Your task to perform on an android device: check the backup settings in the google photos Image 0: 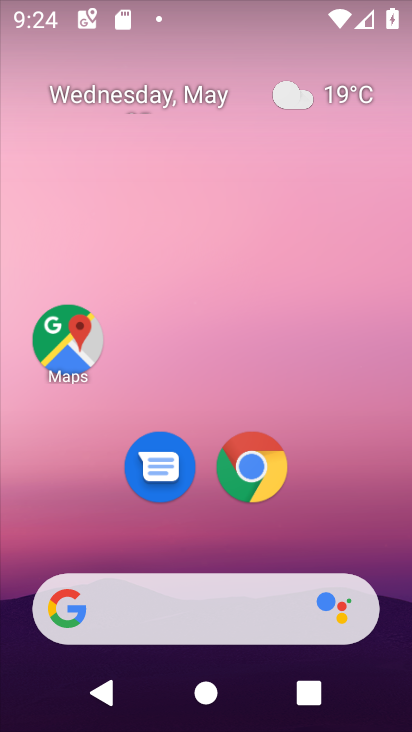
Step 0: drag from (336, 463) to (326, 85)
Your task to perform on an android device: check the backup settings in the google photos Image 1: 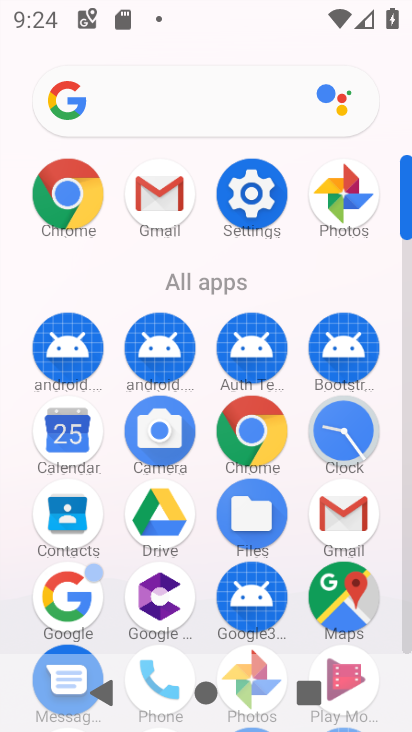
Step 1: drag from (316, 605) to (332, 341)
Your task to perform on an android device: check the backup settings in the google photos Image 2: 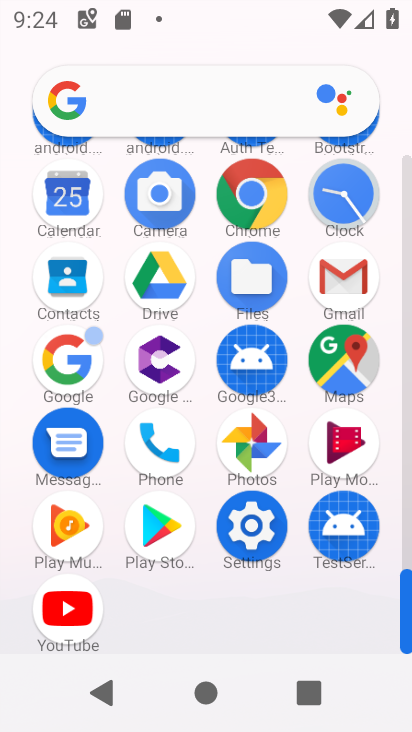
Step 2: click (272, 430)
Your task to perform on an android device: check the backup settings in the google photos Image 3: 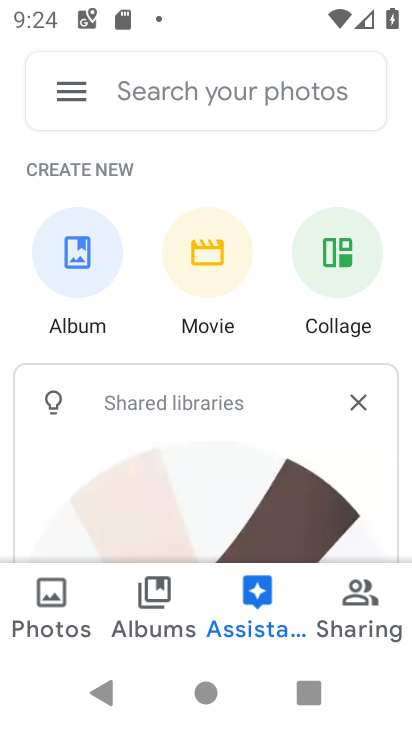
Step 3: click (75, 99)
Your task to perform on an android device: check the backup settings in the google photos Image 4: 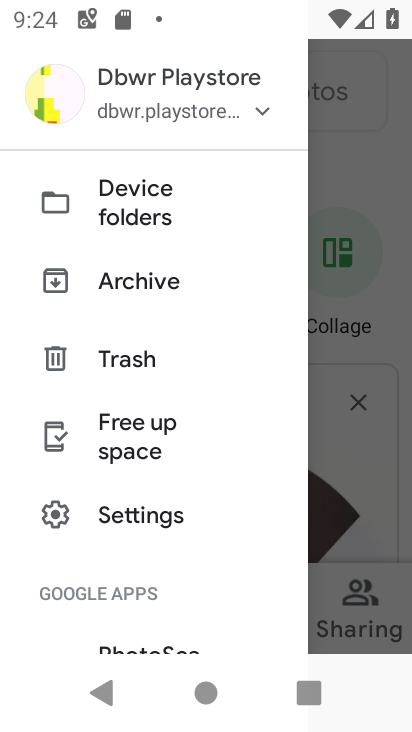
Step 4: drag from (116, 566) to (170, 353)
Your task to perform on an android device: check the backup settings in the google photos Image 5: 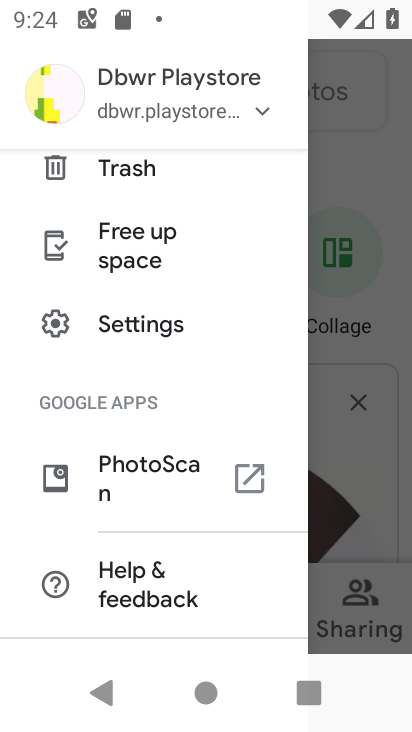
Step 5: click (172, 311)
Your task to perform on an android device: check the backup settings in the google photos Image 6: 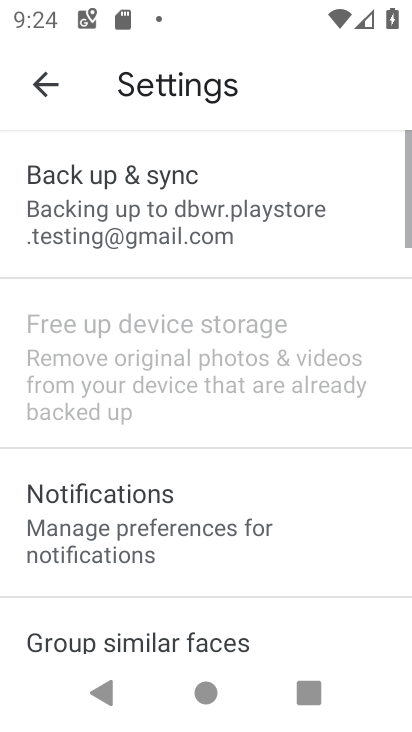
Step 6: click (190, 185)
Your task to perform on an android device: check the backup settings in the google photos Image 7: 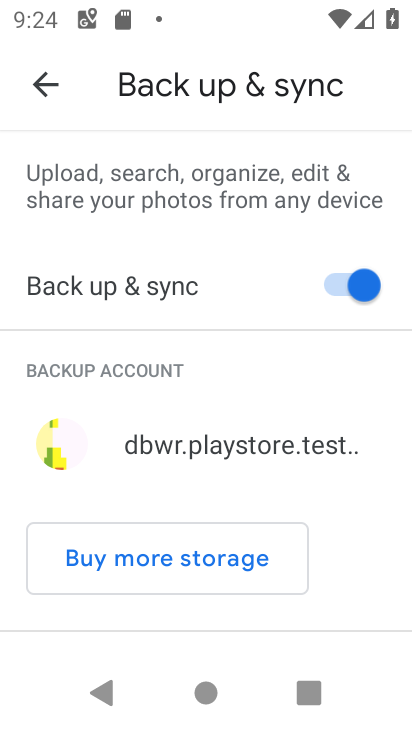
Step 7: task complete